Your task to perform on an android device: install app "ColorNote Notepad Notes" Image 0: 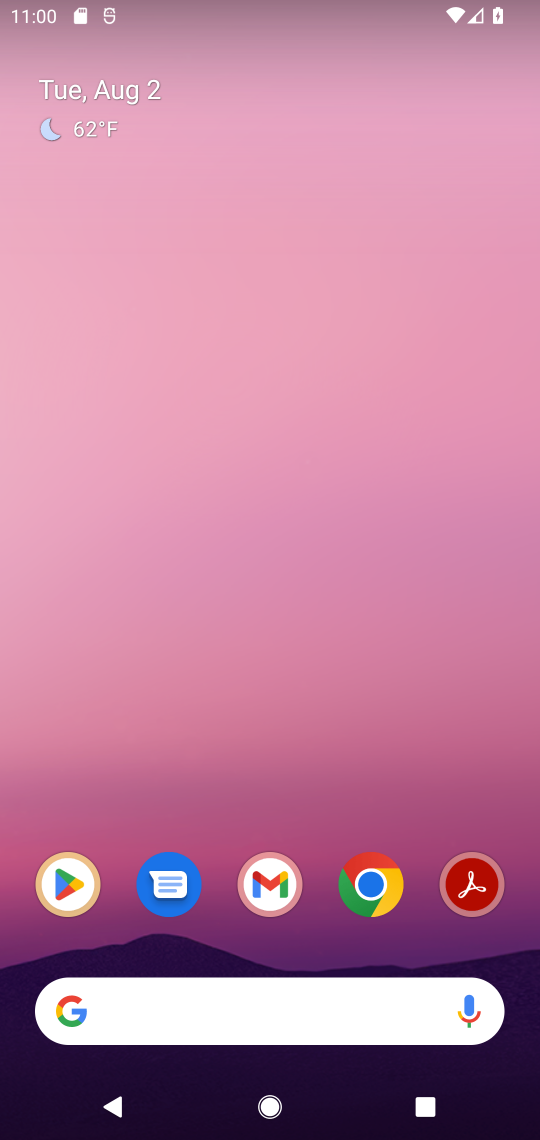
Step 0: click (61, 903)
Your task to perform on an android device: install app "ColorNote Notepad Notes" Image 1: 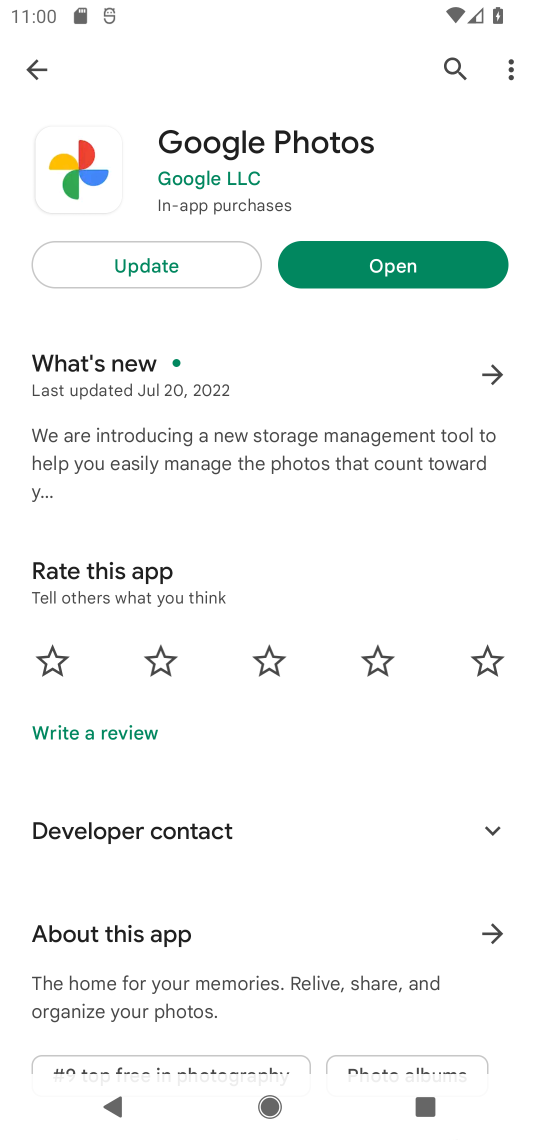
Step 1: click (48, 68)
Your task to perform on an android device: install app "ColorNote Notepad Notes" Image 2: 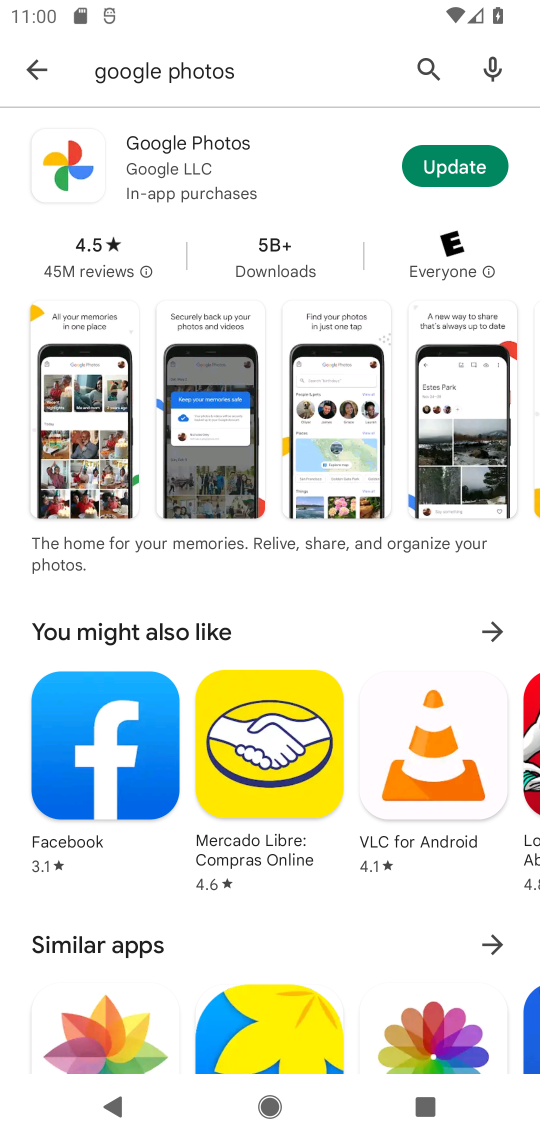
Step 2: click (193, 71)
Your task to perform on an android device: install app "ColorNote Notepad Notes" Image 3: 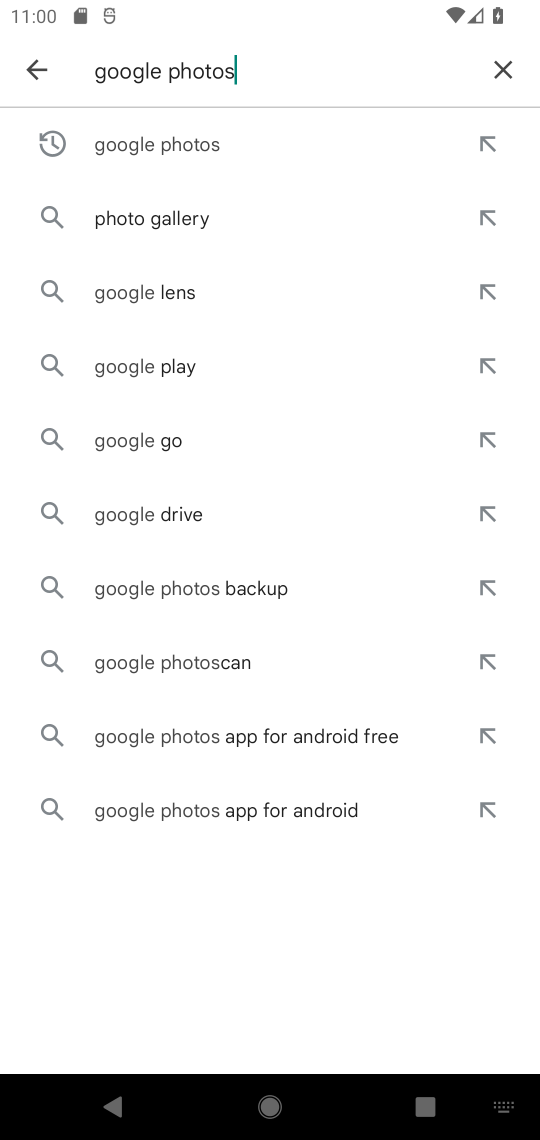
Step 3: click (500, 56)
Your task to perform on an android device: install app "ColorNote Notepad Notes" Image 4: 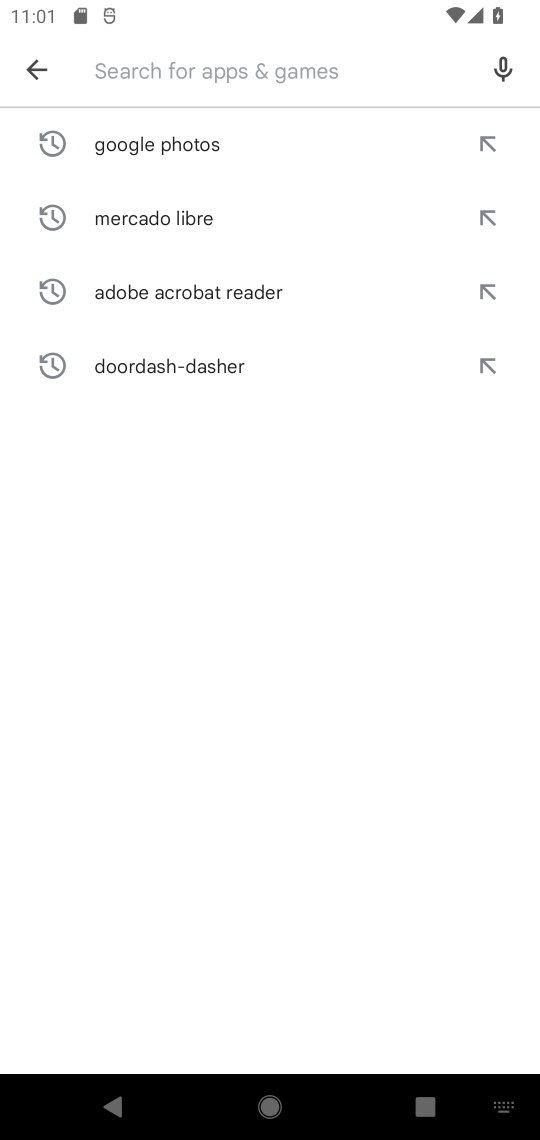
Step 4: type "colornote notepad notes"
Your task to perform on an android device: install app "ColorNote Notepad Notes" Image 5: 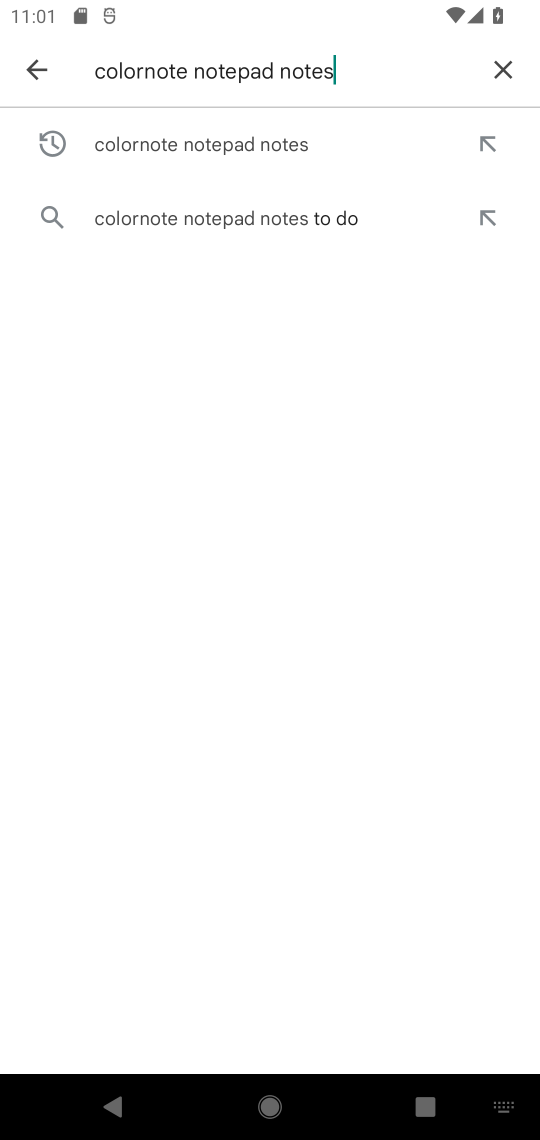
Step 5: click (218, 151)
Your task to perform on an android device: install app "ColorNote Notepad Notes" Image 6: 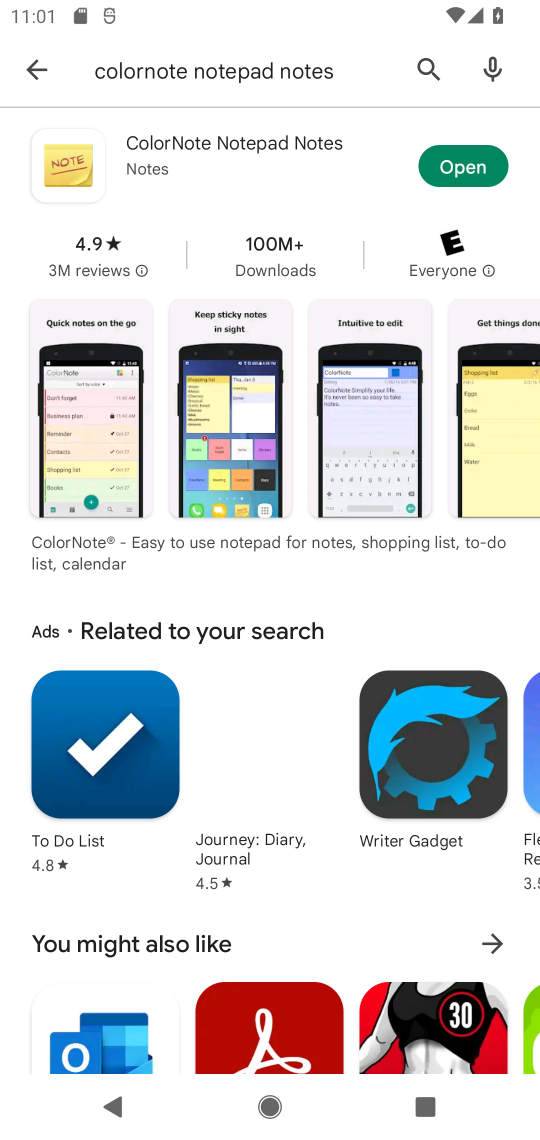
Step 6: click (69, 166)
Your task to perform on an android device: install app "ColorNote Notepad Notes" Image 7: 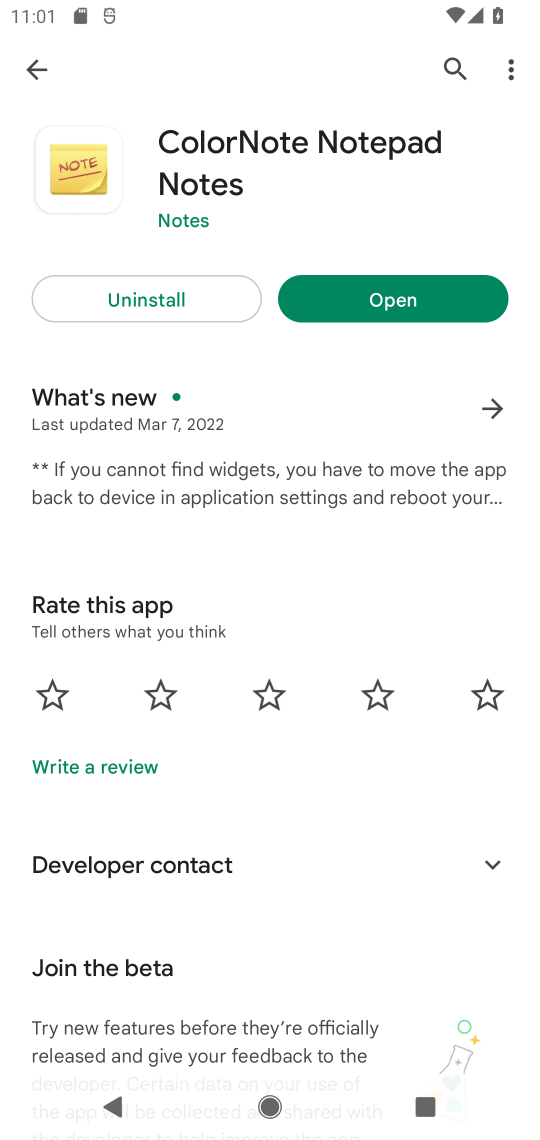
Step 7: task complete